Your task to perform on an android device: What's the weather today? Image 0: 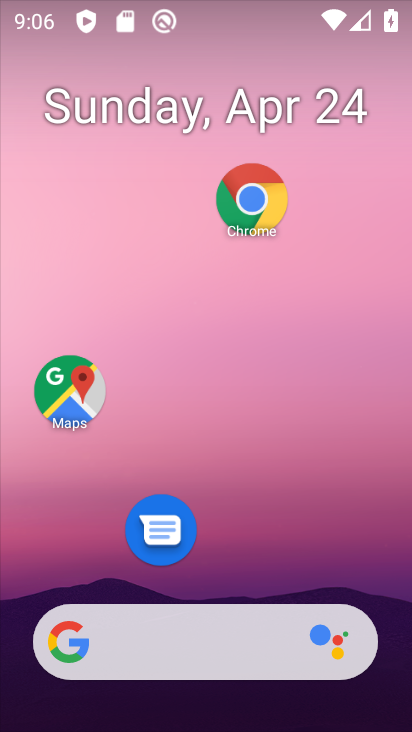
Step 0: click (398, 396)
Your task to perform on an android device: What's the weather today? Image 1: 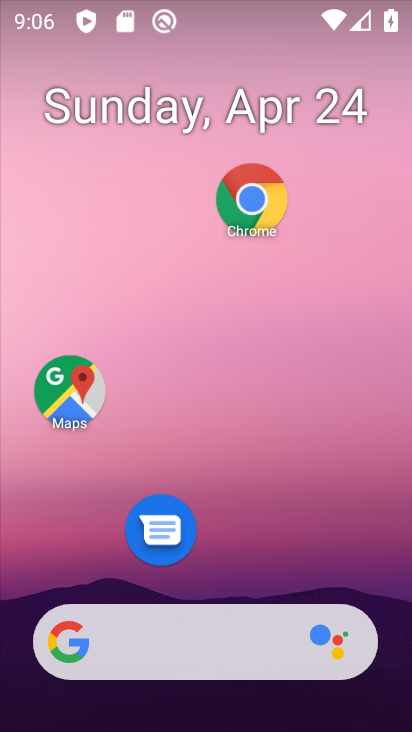
Step 1: drag from (206, 533) to (176, 233)
Your task to perform on an android device: What's the weather today? Image 2: 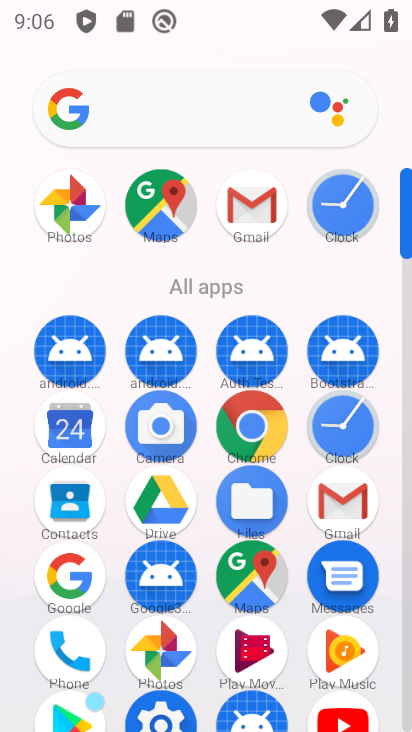
Step 2: click (56, 577)
Your task to perform on an android device: What's the weather today? Image 3: 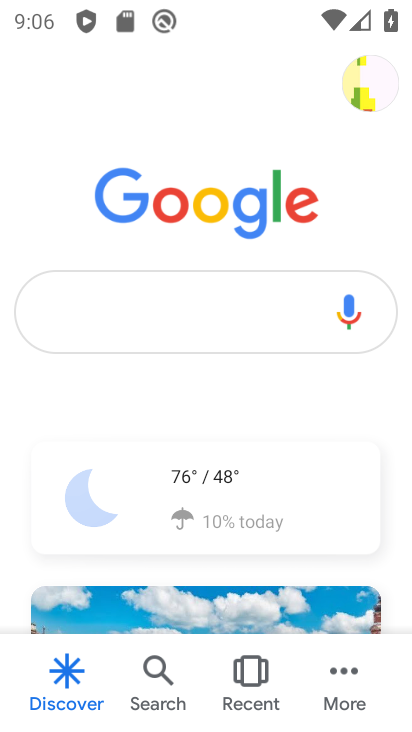
Step 3: click (151, 316)
Your task to perform on an android device: What's the weather today? Image 4: 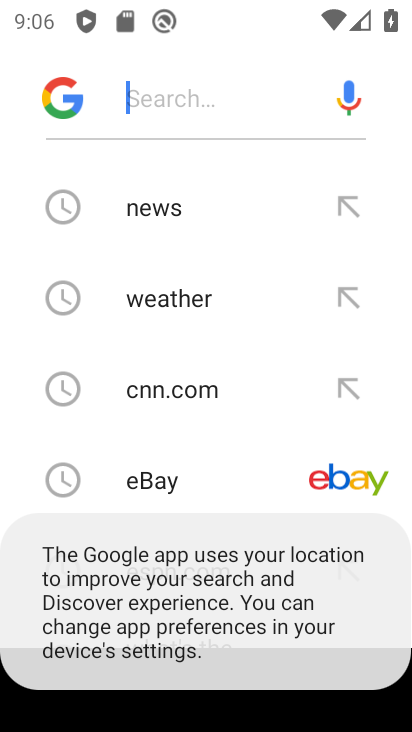
Step 4: drag from (180, 447) to (252, 151)
Your task to perform on an android device: What's the weather today? Image 5: 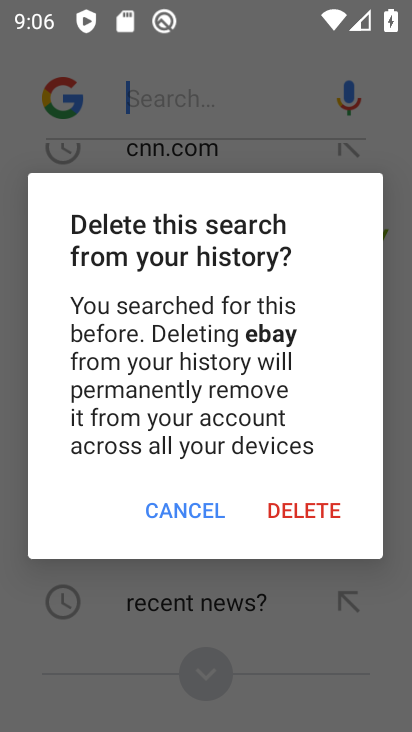
Step 5: click (197, 505)
Your task to perform on an android device: What's the weather today? Image 6: 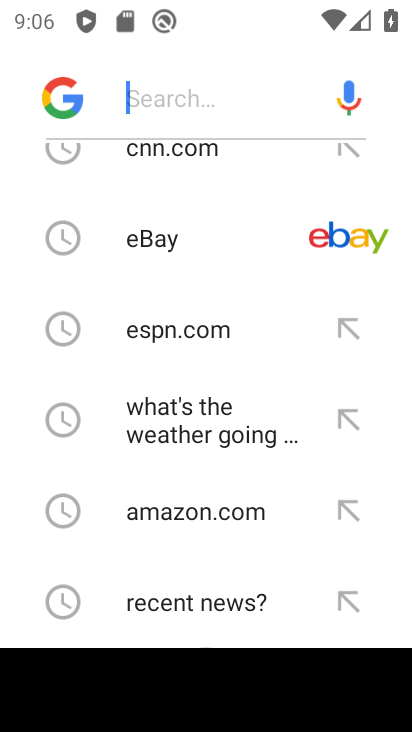
Step 6: drag from (199, 526) to (205, 276)
Your task to perform on an android device: What's the weather today? Image 7: 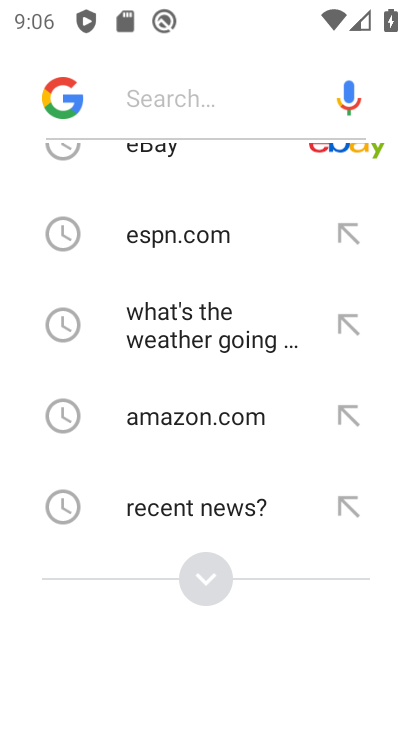
Step 7: click (209, 600)
Your task to perform on an android device: What's the weather today? Image 8: 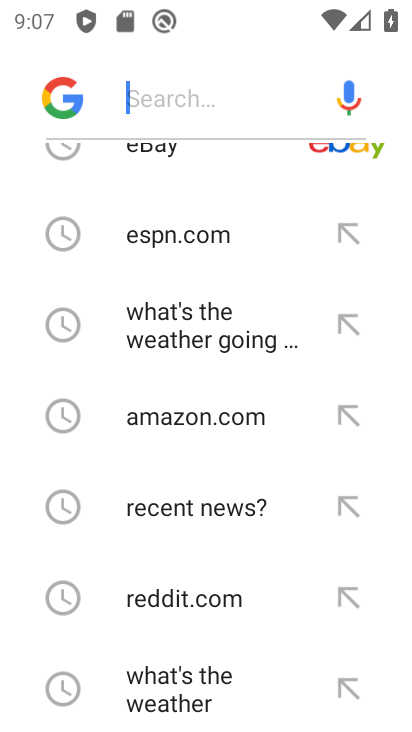
Step 8: drag from (208, 599) to (258, 219)
Your task to perform on an android device: What's the weather today? Image 9: 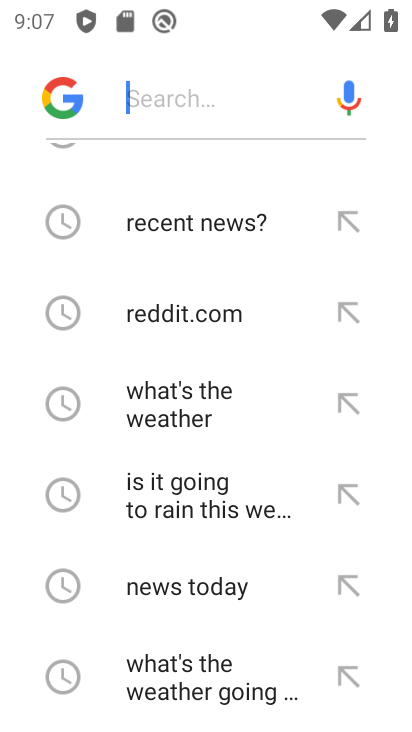
Step 9: drag from (233, 611) to (270, 261)
Your task to perform on an android device: What's the weather today? Image 10: 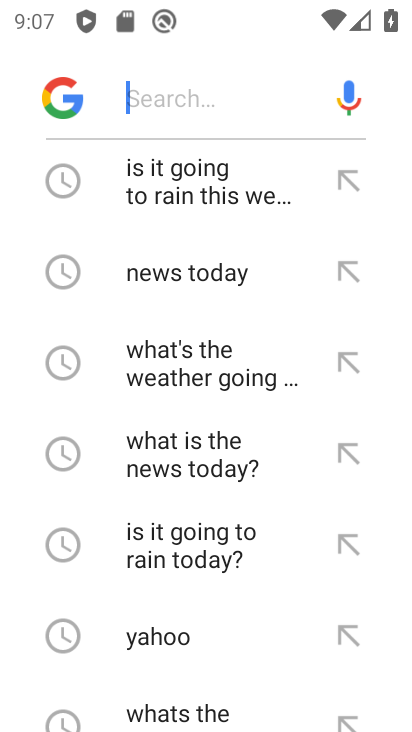
Step 10: click (207, 375)
Your task to perform on an android device: What's the weather today? Image 11: 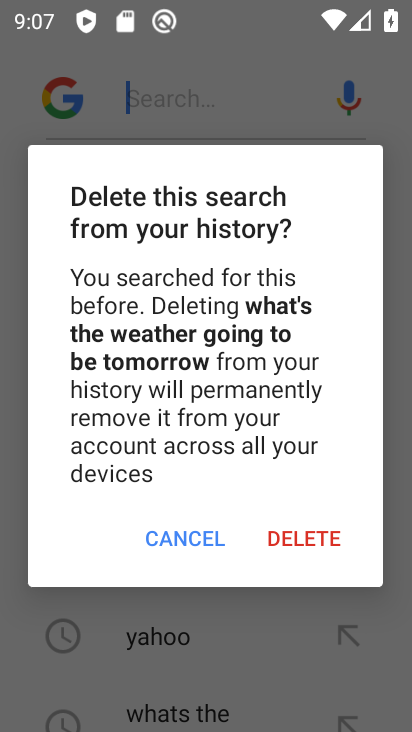
Step 11: click (173, 555)
Your task to perform on an android device: What's the weather today? Image 12: 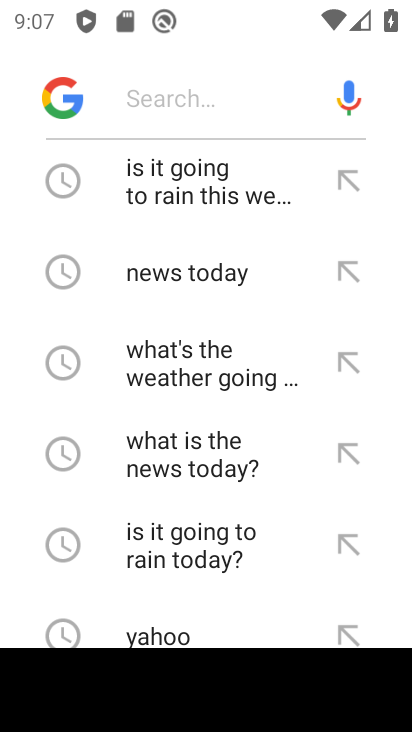
Step 12: click (131, 102)
Your task to perform on an android device: What's the weather today? Image 13: 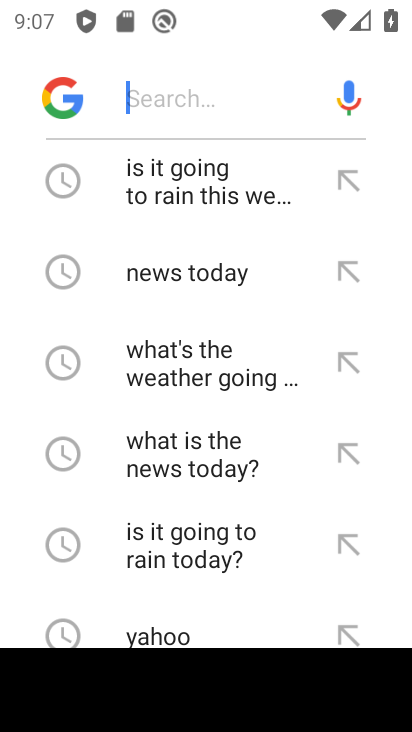
Step 13: type "weather today"
Your task to perform on an android device: What's the weather today? Image 14: 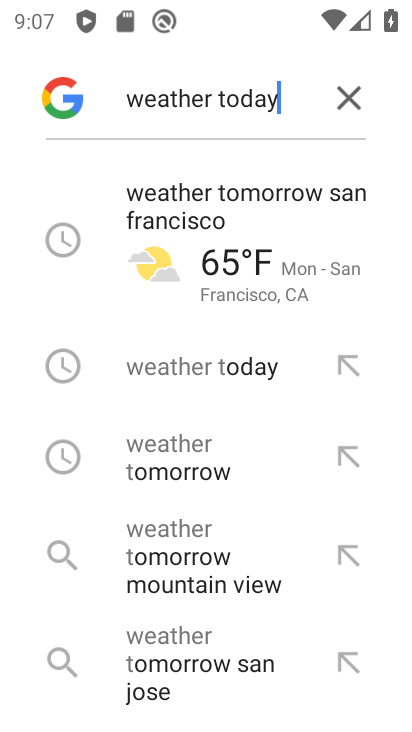
Step 14: click (210, 191)
Your task to perform on an android device: What's the weather today? Image 15: 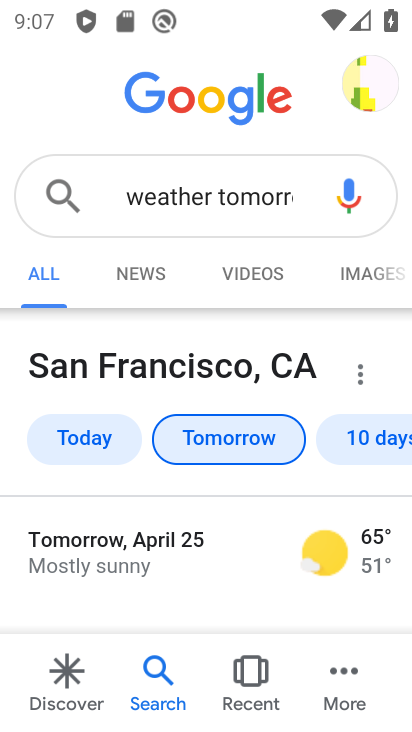
Step 15: task complete